Your task to perform on an android device: check storage Image 0: 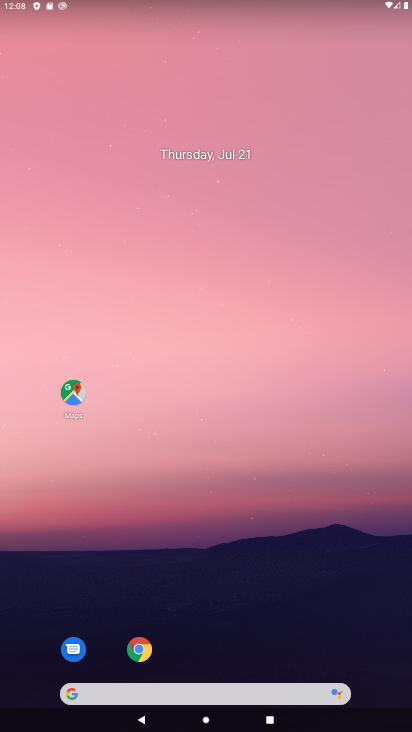
Step 0: drag from (390, 672) to (331, 168)
Your task to perform on an android device: check storage Image 1: 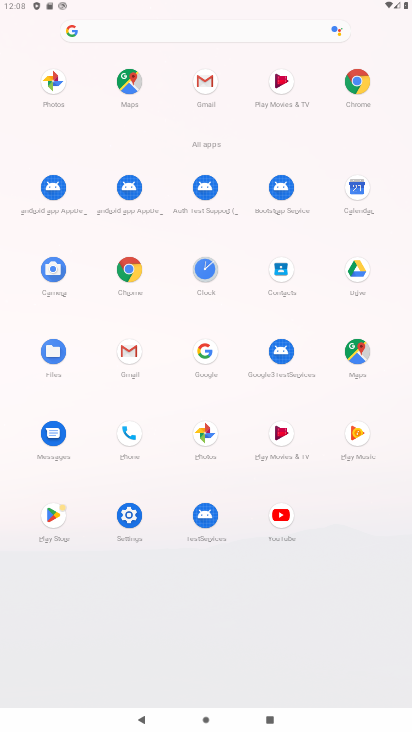
Step 1: click (129, 514)
Your task to perform on an android device: check storage Image 2: 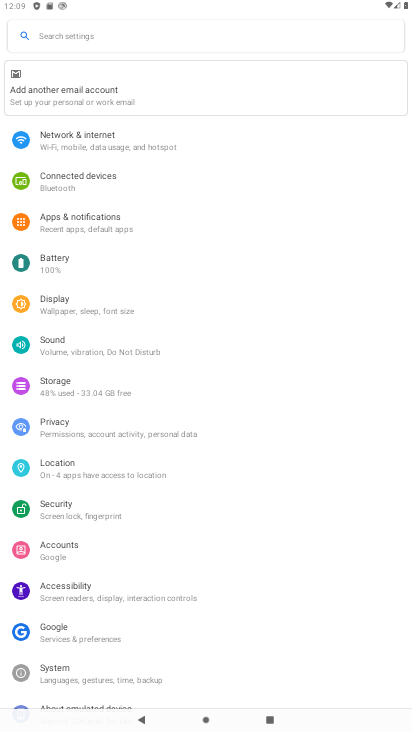
Step 2: click (60, 382)
Your task to perform on an android device: check storage Image 3: 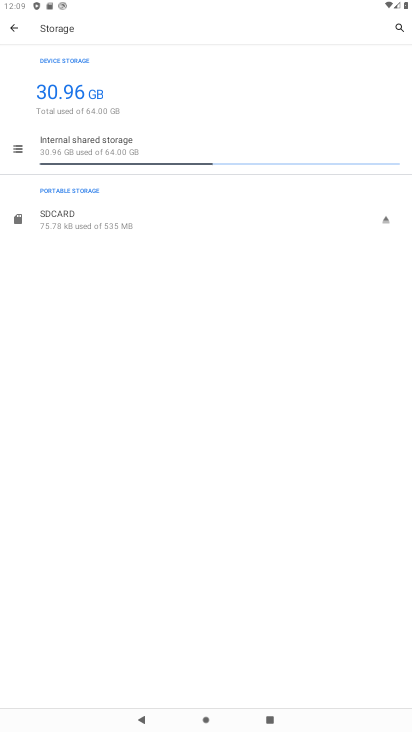
Step 3: task complete